Your task to perform on an android device: View the shopping cart on walmart.com. Image 0: 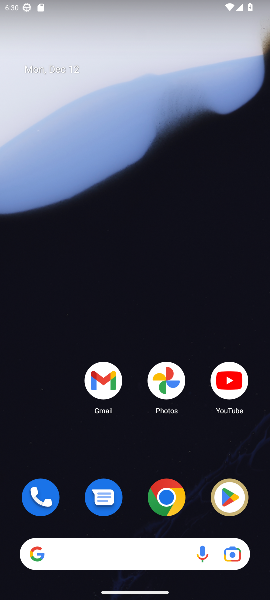
Step 0: press home button
Your task to perform on an android device: View the shopping cart on walmart.com. Image 1: 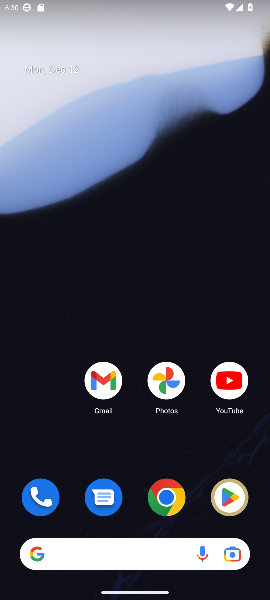
Step 1: drag from (50, 441) to (43, 51)
Your task to perform on an android device: View the shopping cart on walmart.com. Image 2: 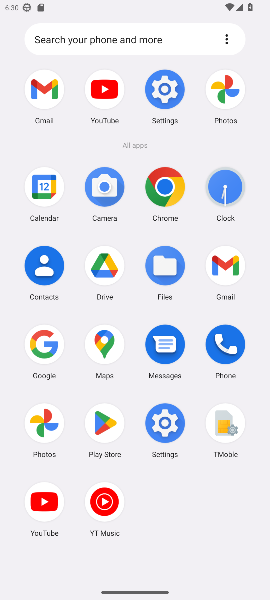
Step 2: click (44, 344)
Your task to perform on an android device: View the shopping cart on walmart.com. Image 3: 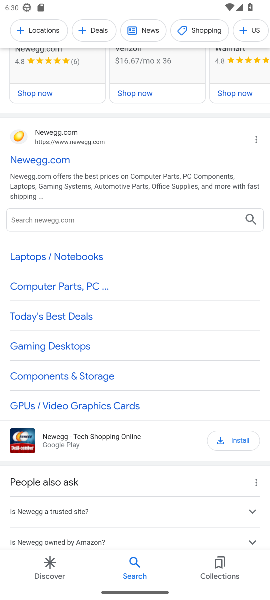
Step 3: press back button
Your task to perform on an android device: View the shopping cart on walmart.com. Image 4: 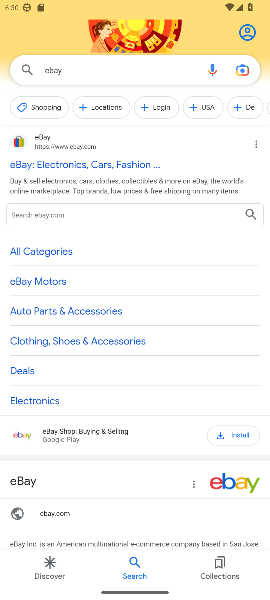
Step 4: click (98, 66)
Your task to perform on an android device: View the shopping cart on walmart.com. Image 5: 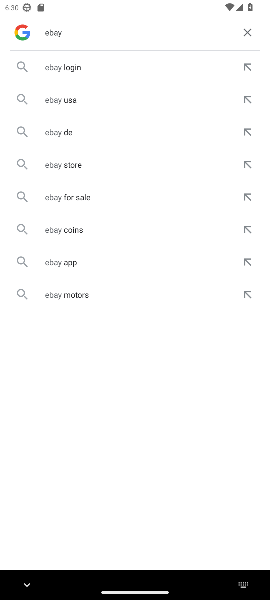
Step 5: click (249, 28)
Your task to perform on an android device: View the shopping cart on walmart.com. Image 6: 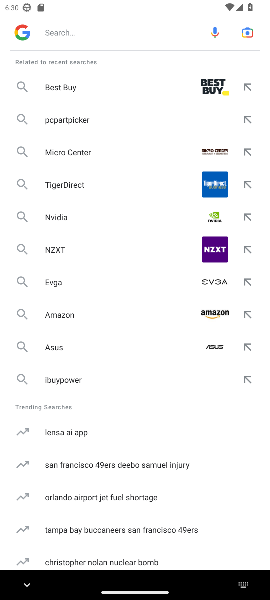
Step 6: type "walmart.com"
Your task to perform on an android device: View the shopping cart on walmart.com. Image 7: 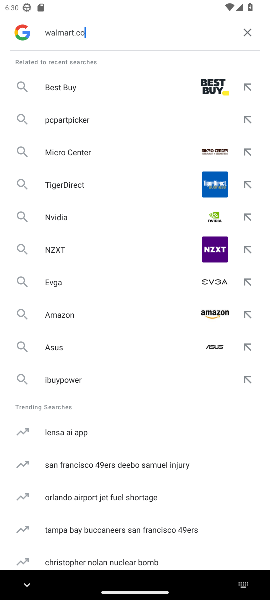
Step 7: press enter
Your task to perform on an android device: View the shopping cart on walmart.com. Image 8: 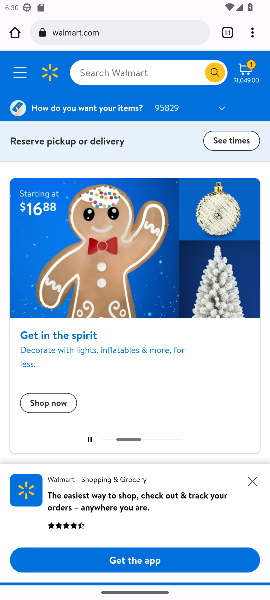
Step 8: click (243, 66)
Your task to perform on an android device: View the shopping cart on walmart.com. Image 9: 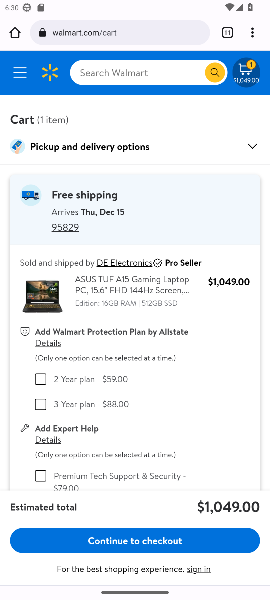
Step 9: task complete